Your task to perform on an android device: turn smart compose on in the gmail app Image 0: 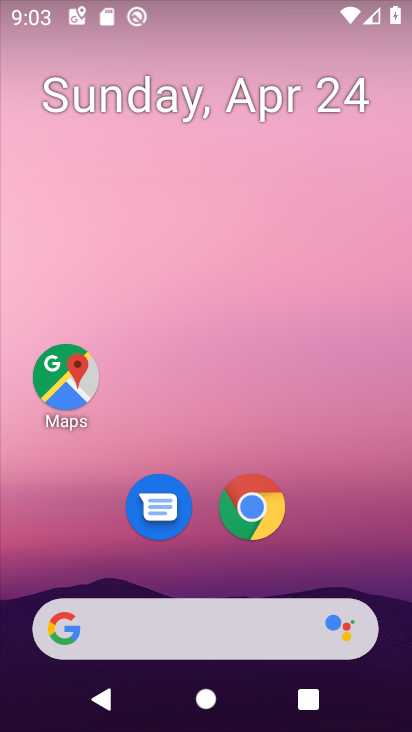
Step 0: drag from (339, 545) to (301, 148)
Your task to perform on an android device: turn smart compose on in the gmail app Image 1: 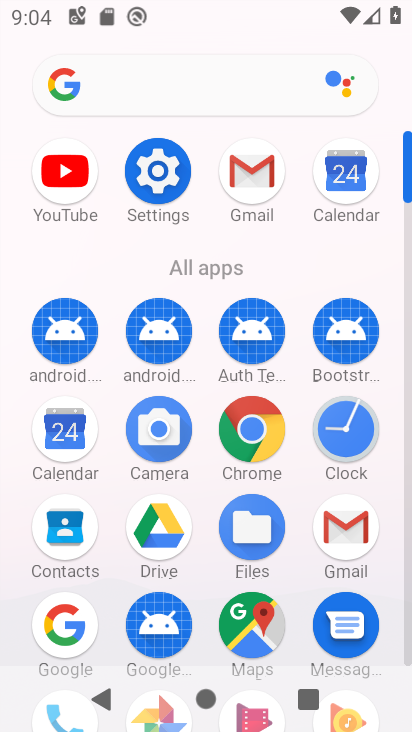
Step 1: click (246, 162)
Your task to perform on an android device: turn smart compose on in the gmail app Image 2: 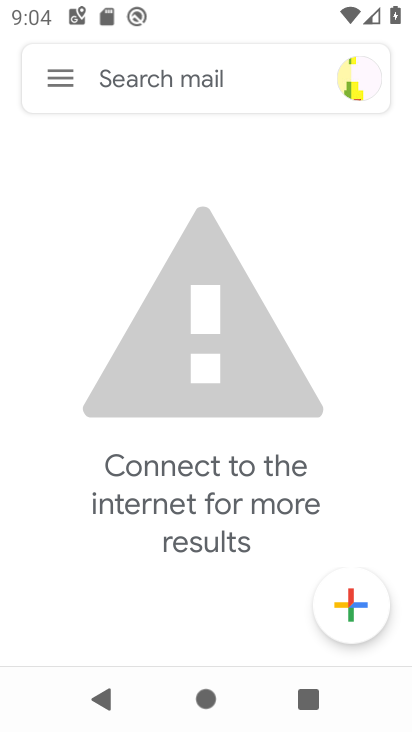
Step 2: click (65, 102)
Your task to perform on an android device: turn smart compose on in the gmail app Image 3: 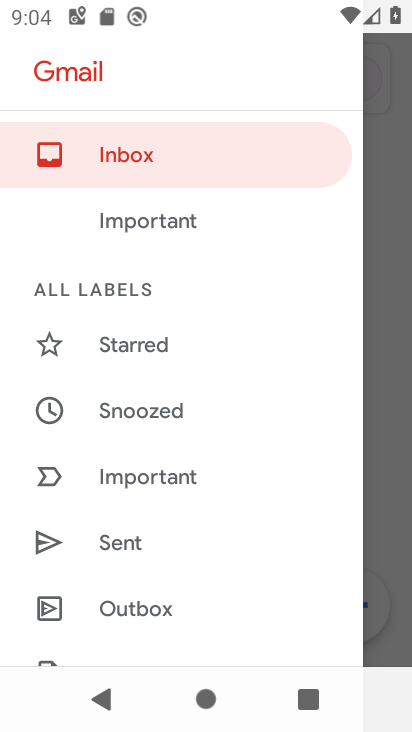
Step 3: drag from (232, 577) to (195, 66)
Your task to perform on an android device: turn smart compose on in the gmail app Image 4: 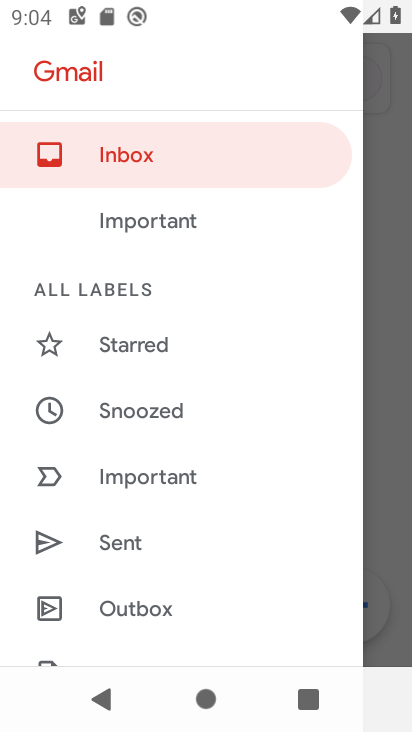
Step 4: drag from (171, 401) to (151, 70)
Your task to perform on an android device: turn smart compose on in the gmail app Image 5: 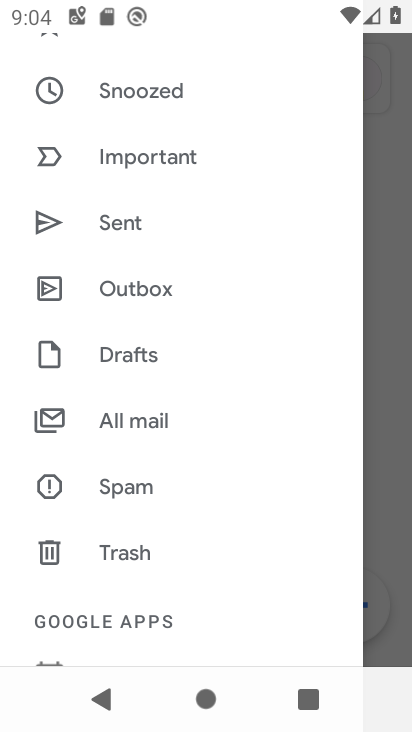
Step 5: drag from (157, 561) to (157, 219)
Your task to perform on an android device: turn smart compose on in the gmail app Image 6: 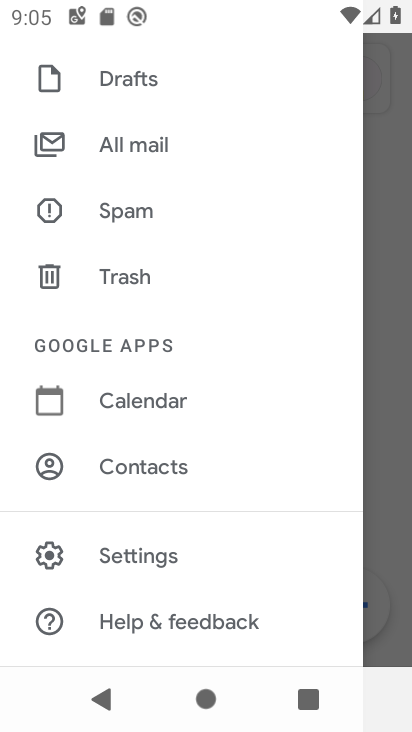
Step 6: click (172, 553)
Your task to perform on an android device: turn smart compose on in the gmail app Image 7: 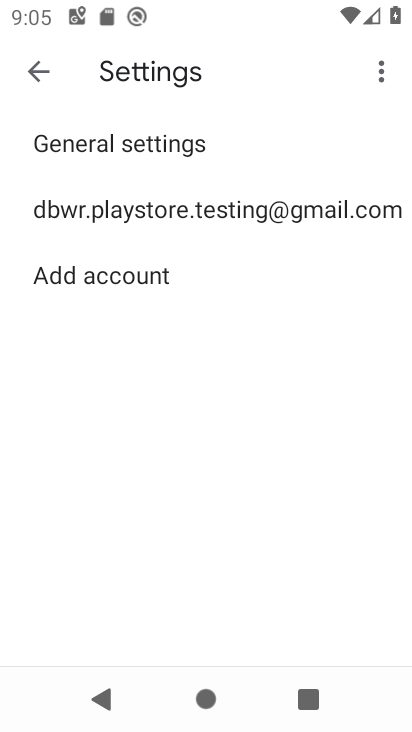
Step 7: click (120, 206)
Your task to perform on an android device: turn smart compose on in the gmail app Image 8: 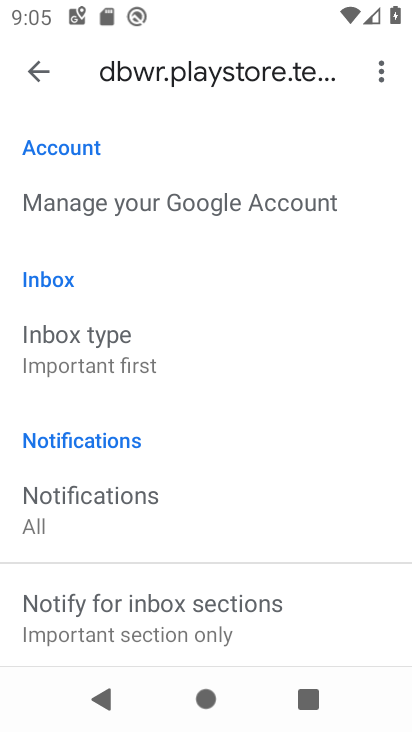
Step 8: task complete